Your task to perform on an android device: uninstall "Adobe Express: Graphic Design" Image 0: 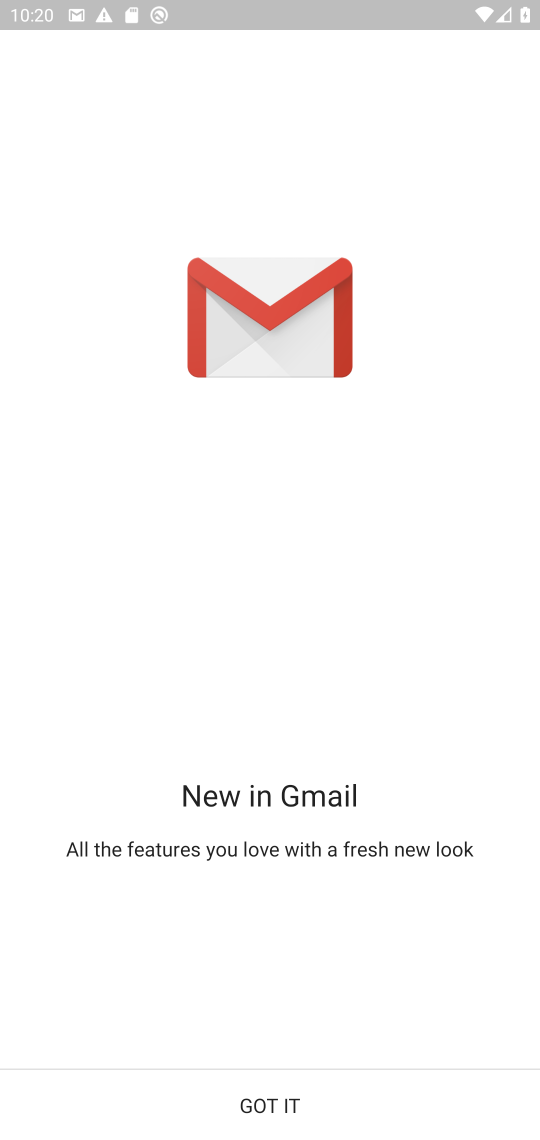
Step 0: press home button
Your task to perform on an android device: uninstall "Adobe Express: Graphic Design" Image 1: 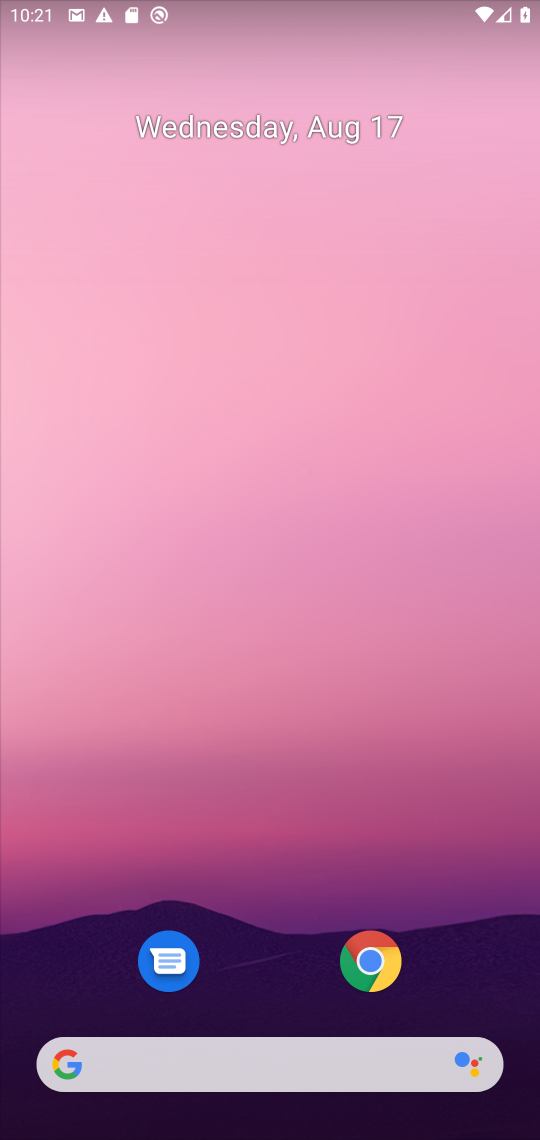
Step 1: drag from (292, 1063) to (350, 143)
Your task to perform on an android device: uninstall "Adobe Express: Graphic Design" Image 2: 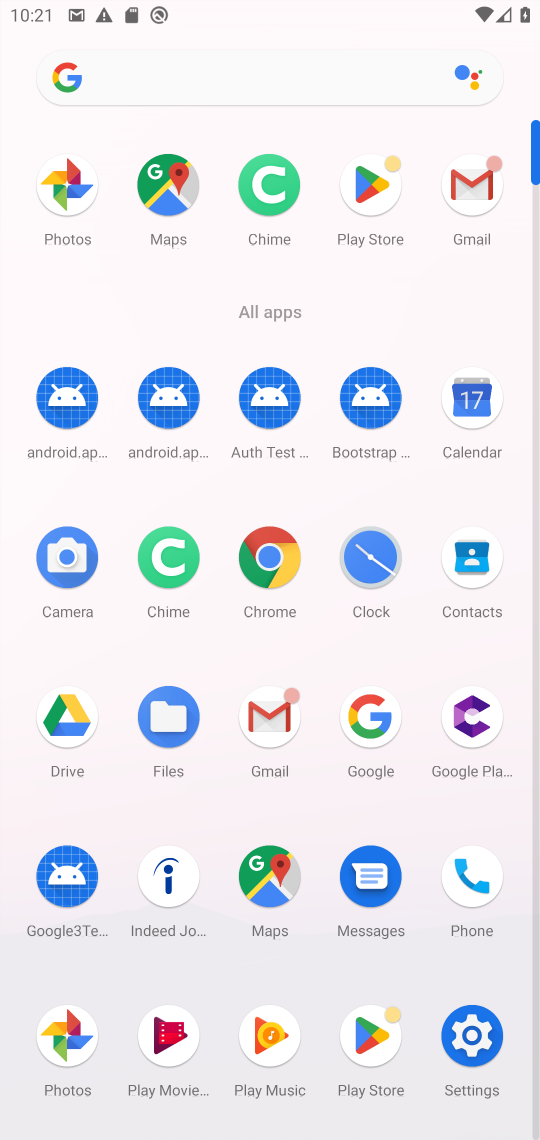
Step 2: click (368, 1033)
Your task to perform on an android device: uninstall "Adobe Express: Graphic Design" Image 3: 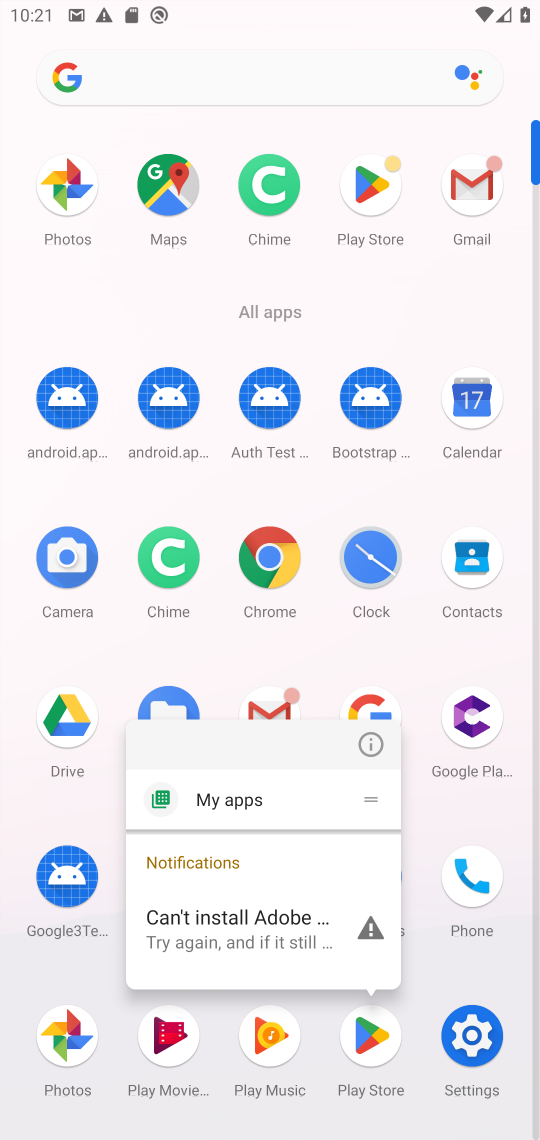
Step 3: click (354, 1052)
Your task to perform on an android device: uninstall "Adobe Express: Graphic Design" Image 4: 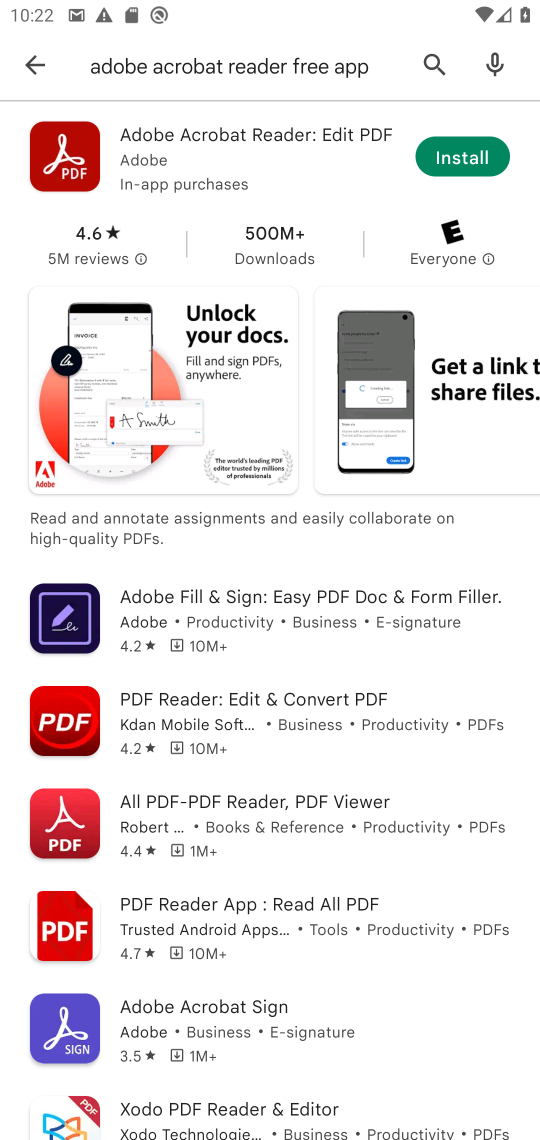
Step 4: click (440, 55)
Your task to perform on an android device: uninstall "Adobe Express: Graphic Design" Image 5: 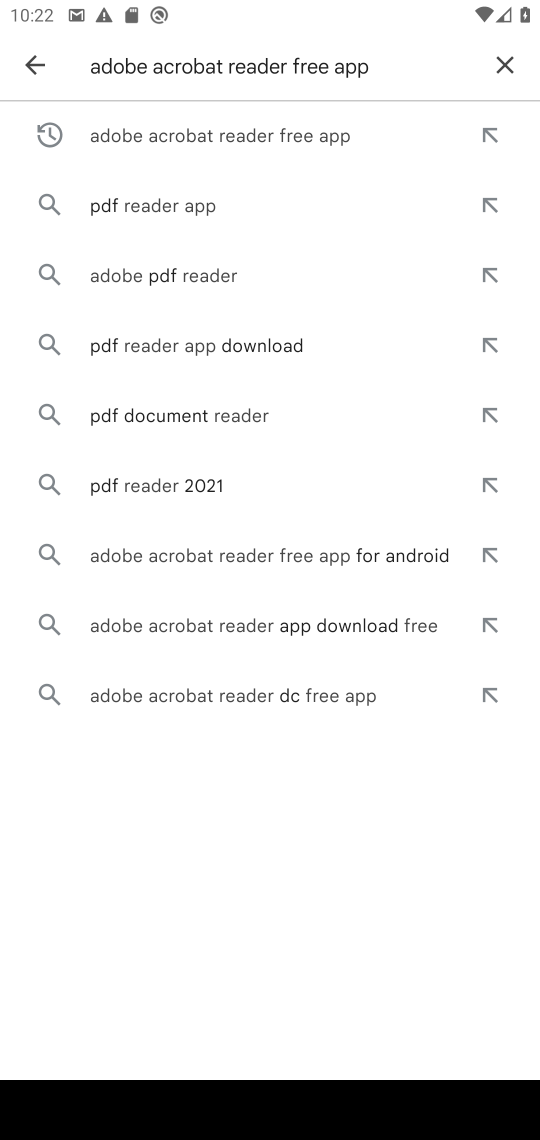
Step 5: click (502, 66)
Your task to perform on an android device: uninstall "Adobe Express: Graphic Design" Image 6: 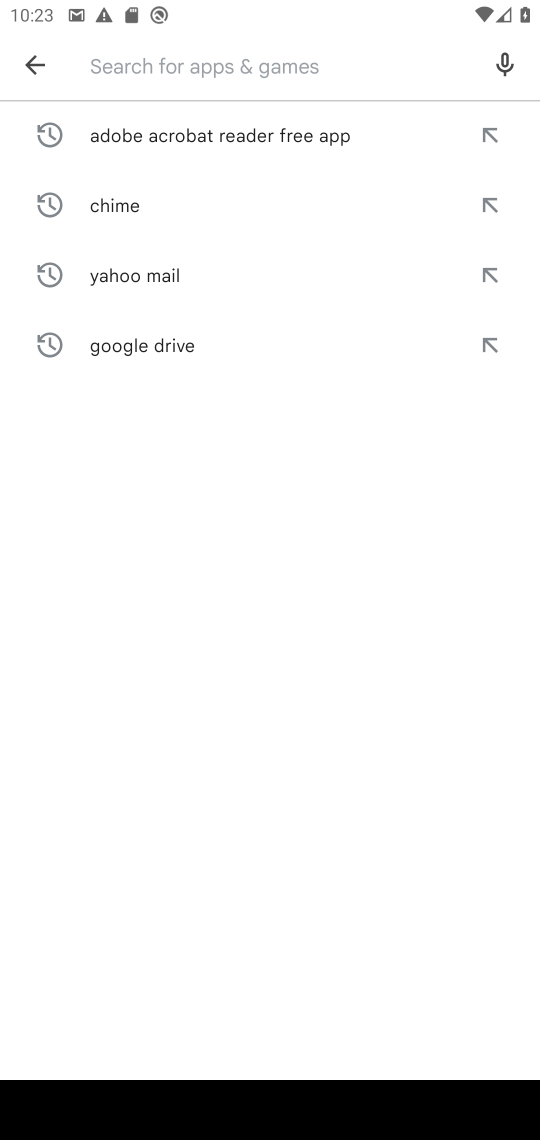
Step 6: type "Adobe Express: Graphic Design"
Your task to perform on an android device: uninstall "Adobe Express: Graphic Design" Image 7: 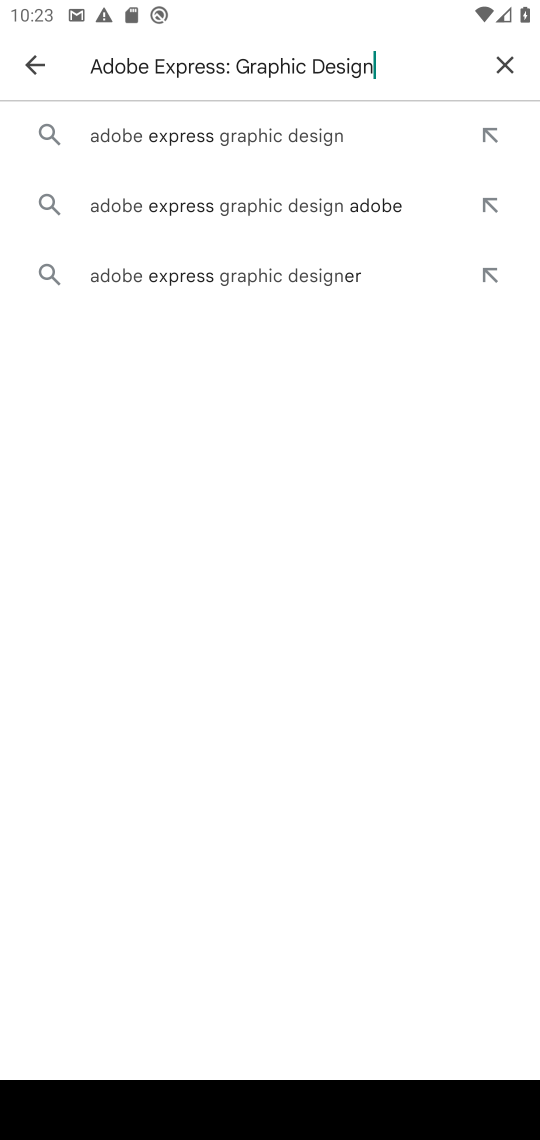
Step 7: click (284, 138)
Your task to perform on an android device: uninstall "Adobe Express: Graphic Design" Image 8: 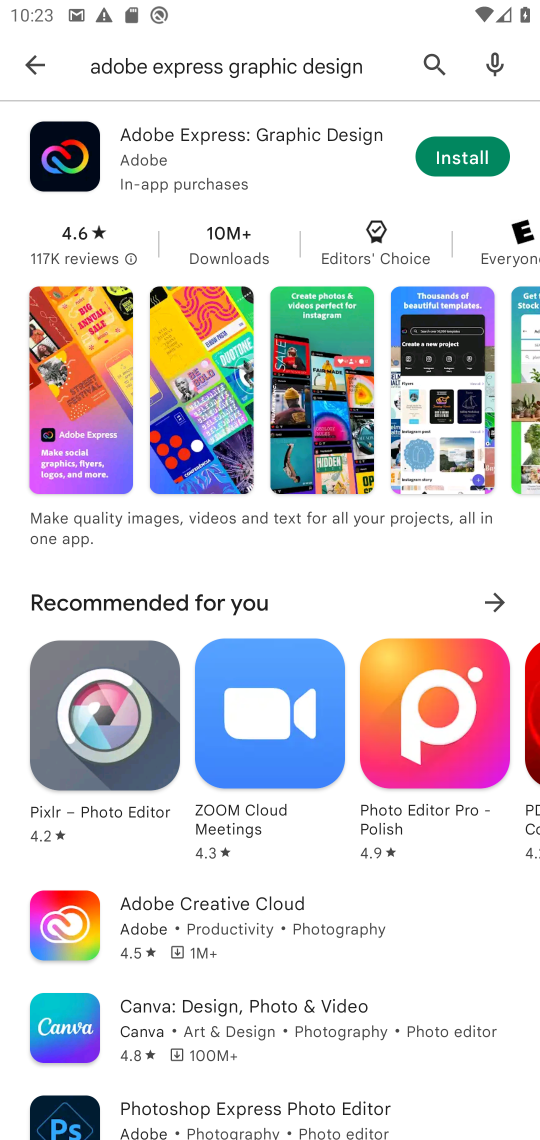
Step 8: task complete